Your task to perform on an android device: Open the calendar app, open the side menu, and click the "Day" option Image 0: 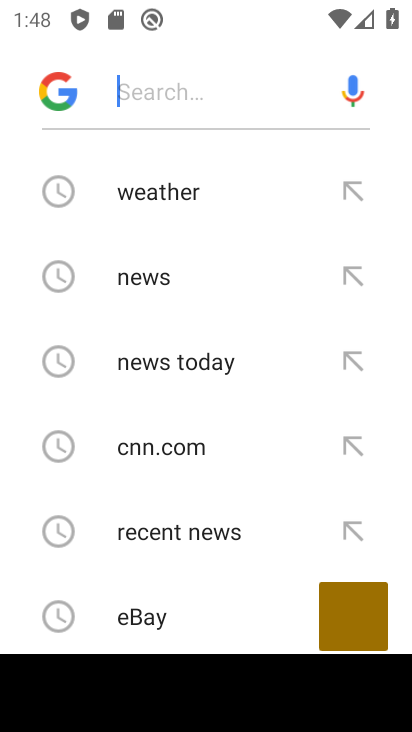
Step 0: press home button
Your task to perform on an android device: Open the calendar app, open the side menu, and click the "Day" option Image 1: 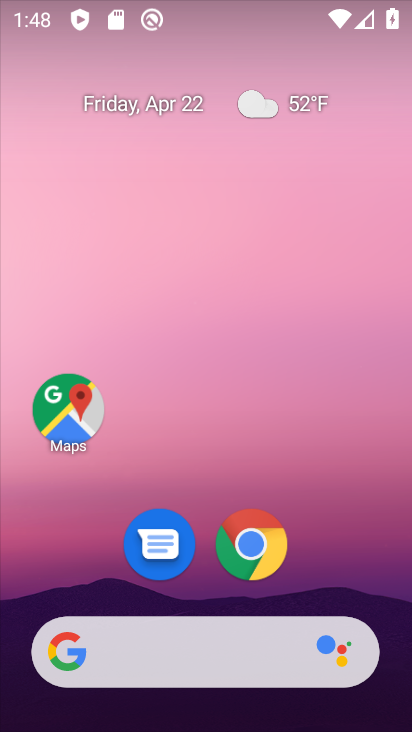
Step 1: drag from (333, 494) to (357, 115)
Your task to perform on an android device: Open the calendar app, open the side menu, and click the "Day" option Image 2: 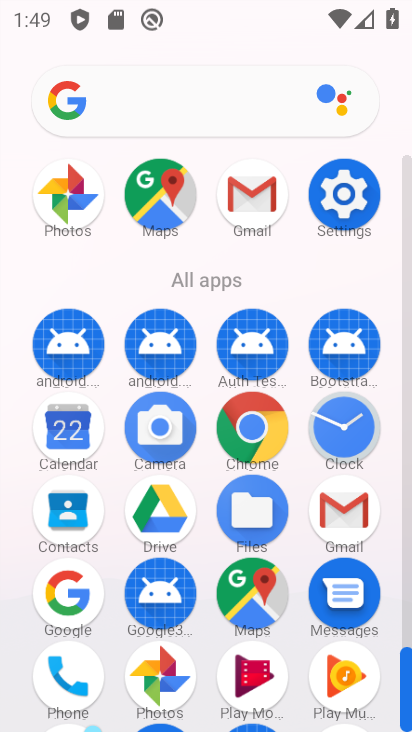
Step 2: click (61, 416)
Your task to perform on an android device: Open the calendar app, open the side menu, and click the "Day" option Image 3: 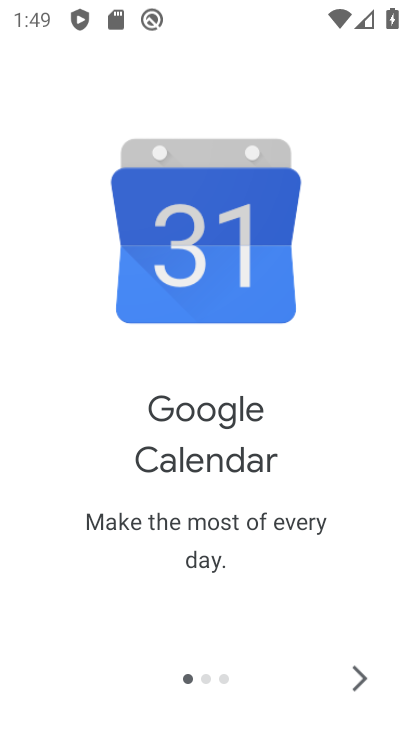
Step 3: click (358, 670)
Your task to perform on an android device: Open the calendar app, open the side menu, and click the "Day" option Image 4: 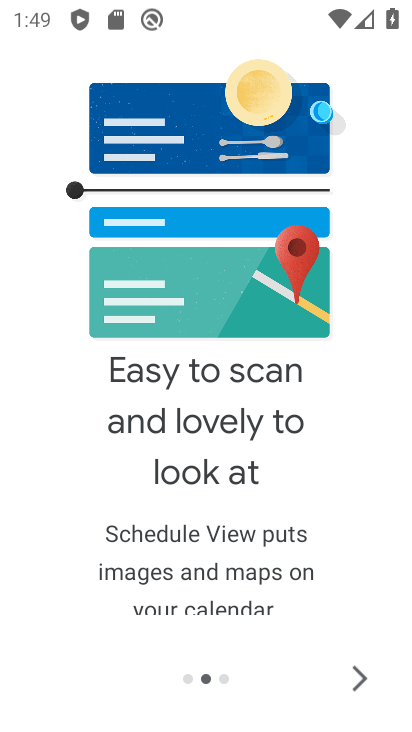
Step 4: click (358, 670)
Your task to perform on an android device: Open the calendar app, open the side menu, and click the "Day" option Image 5: 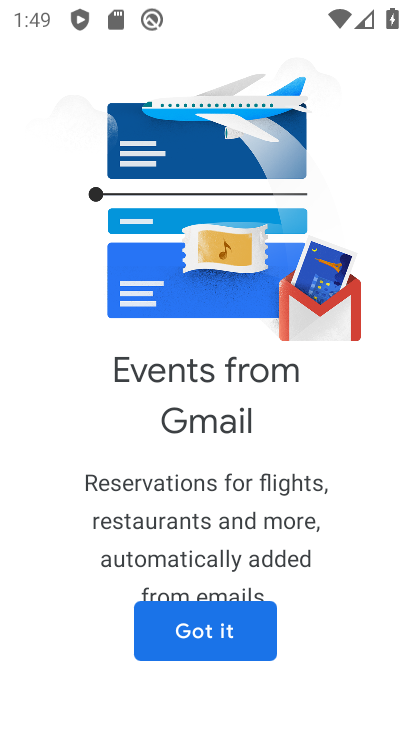
Step 5: click (222, 634)
Your task to perform on an android device: Open the calendar app, open the side menu, and click the "Day" option Image 6: 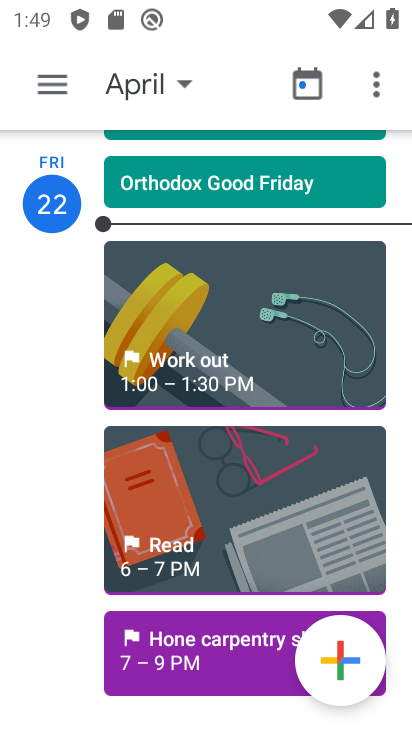
Step 6: click (54, 85)
Your task to perform on an android device: Open the calendar app, open the side menu, and click the "Day" option Image 7: 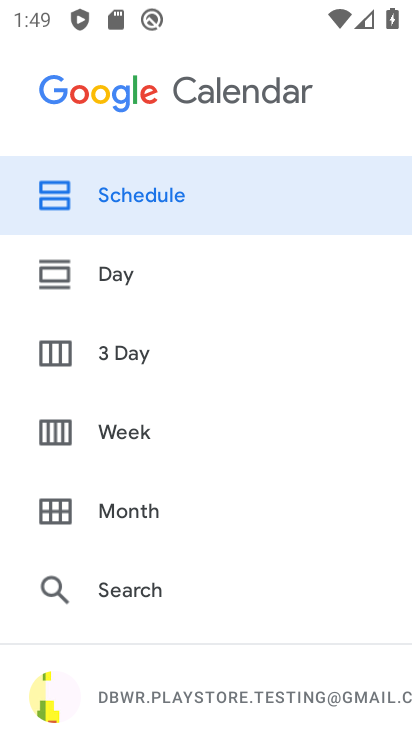
Step 7: click (132, 263)
Your task to perform on an android device: Open the calendar app, open the side menu, and click the "Day" option Image 8: 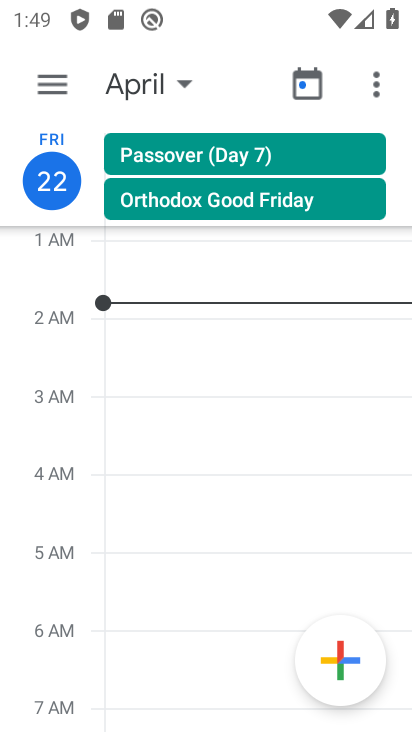
Step 8: task complete